Your task to perform on an android device: choose inbox layout in the gmail app Image 0: 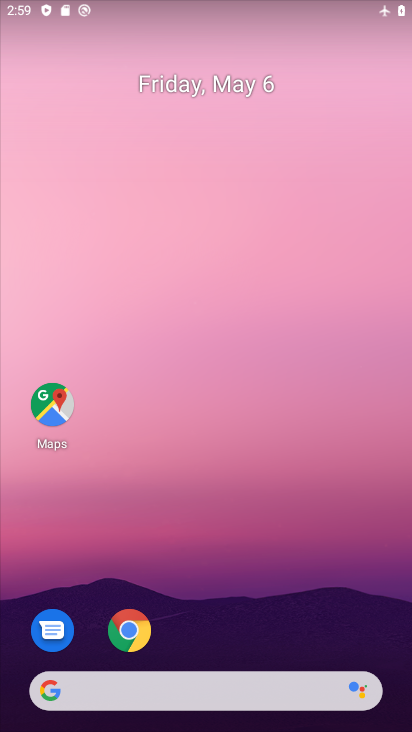
Step 0: drag from (214, 630) to (219, 31)
Your task to perform on an android device: choose inbox layout in the gmail app Image 1: 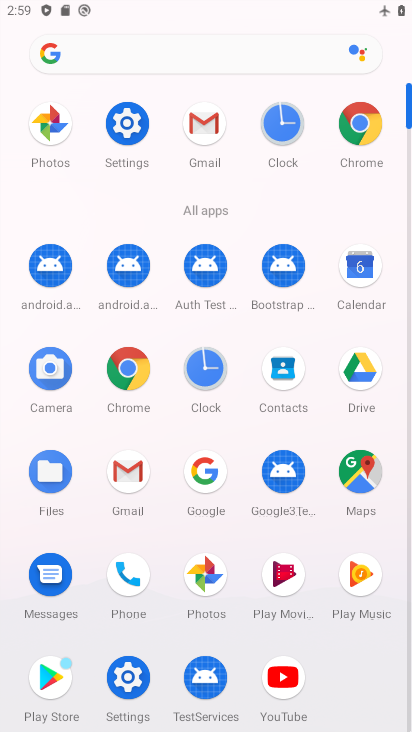
Step 1: click (123, 469)
Your task to perform on an android device: choose inbox layout in the gmail app Image 2: 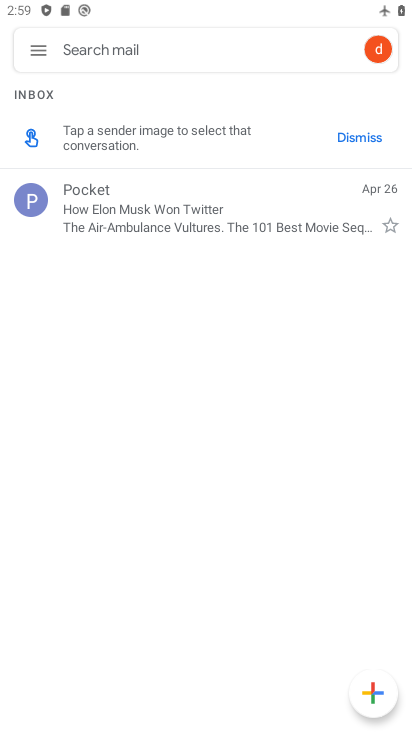
Step 2: click (33, 60)
Your task to perform on an android device: choose inbox layout in the gmail app Image 3: 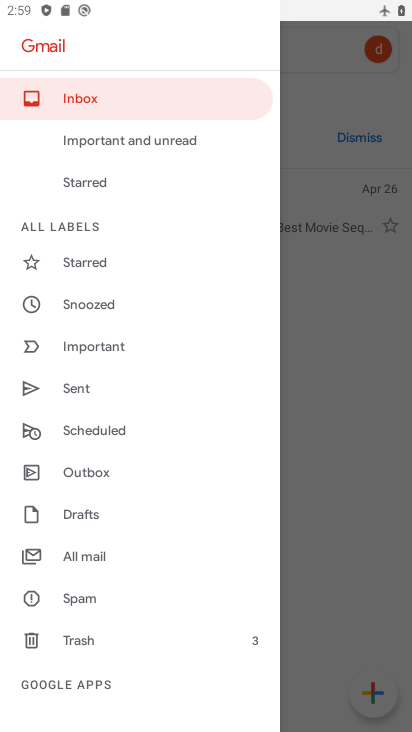
Step 3: drag from (122, 670) to (115, 378)
Your task to perform on an android device: choose inbox layout in the gmail app Image 4: 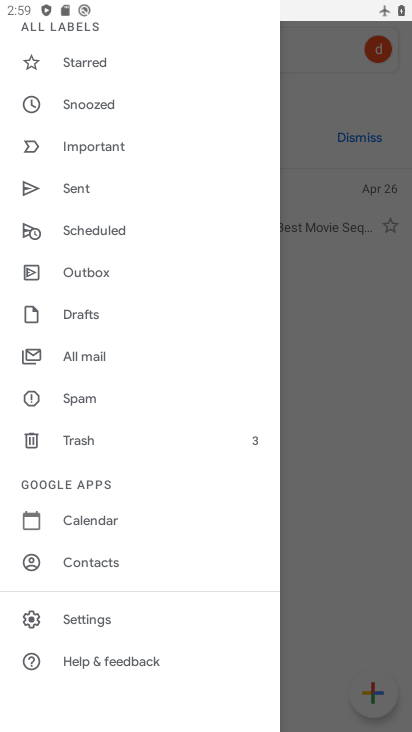
Step 4: click (106, 612)
Your task to perform on an android device: choose inbox layout in the gmail app Image 5: 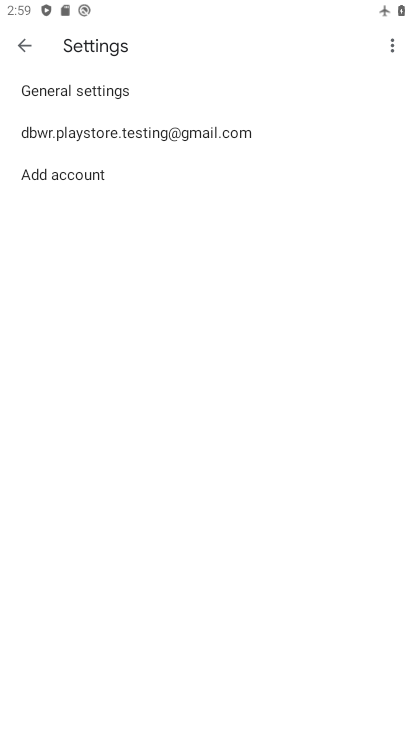
Step 5: click (218, 130)
Your task to perform on an android device: choose inbox layout in the gmail app Image 6: 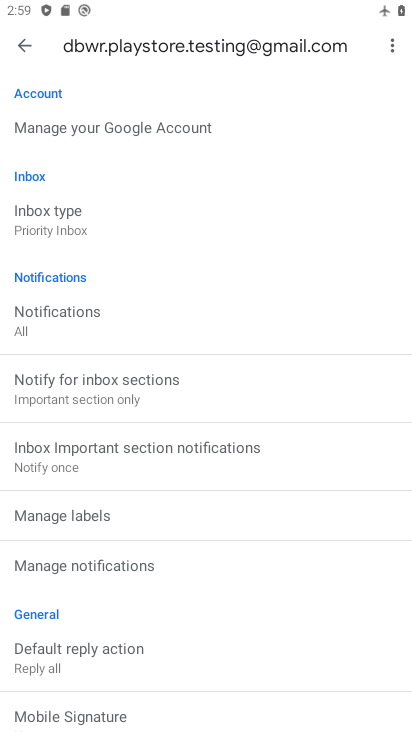
Step 6: click (81, 242)
Your task to perform on an android device: choose inbox layout in the gmail app Image 7: 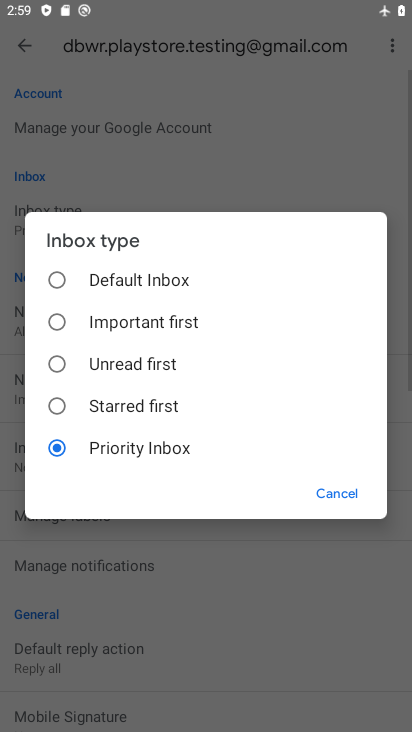
Step 7: click (112, 274)
Your task to perform on an android device: choose inbox layout in the gmail app Image 8: 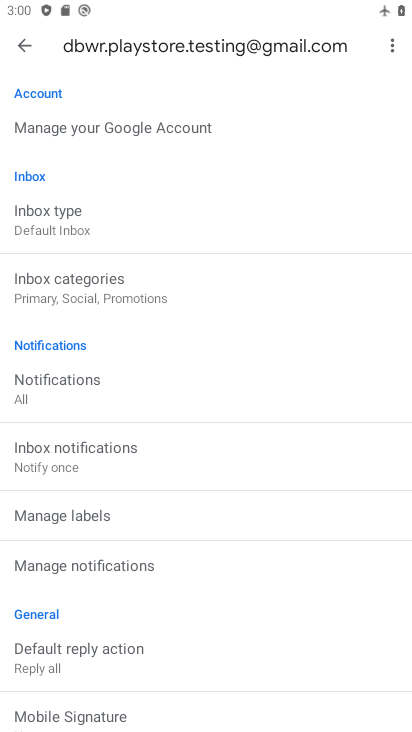
Step 8: task complete